Your task to perform on an android device: Open sound settings Image 0: 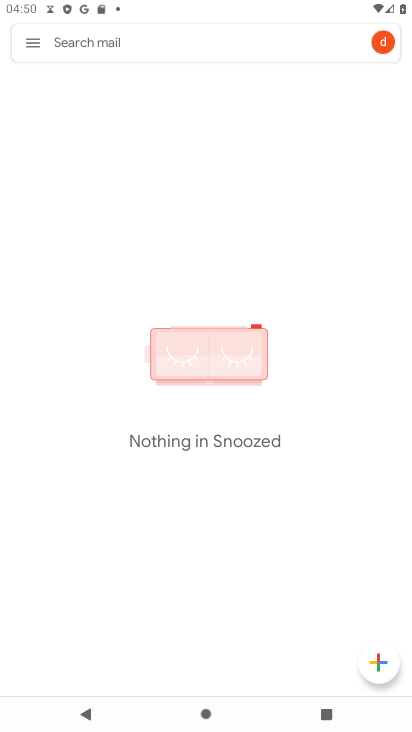
Step 0: press home button
Your task to perform on an android device: Open sound settings Image 1: 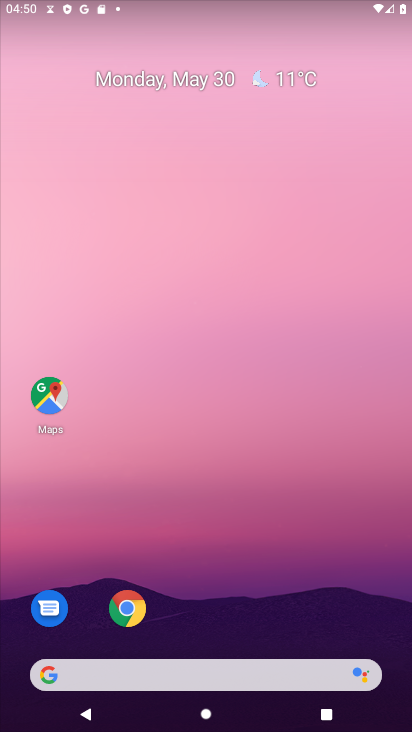
Step 1: drag from (174, 545) to (177, 168)
Your task to perform on an android device: Open sound settings Image 2: 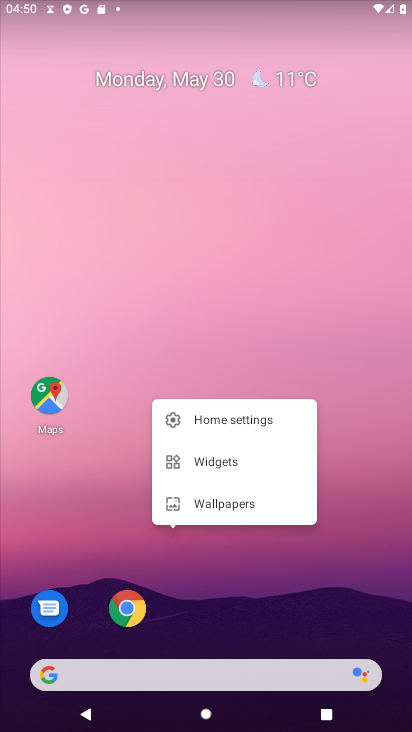
Step 2: drag from (232, 649) to (232, 242)
Your task to perform on an android device: Open sound settings Image 3: 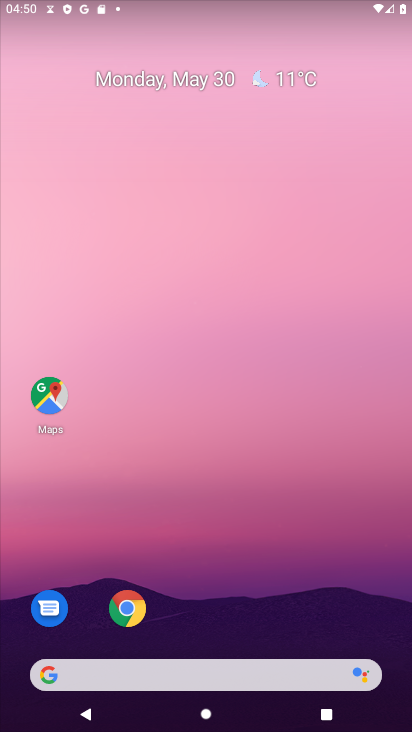
Step 3: drag from (234, 657) to (234, 196)
Your task to perform on an android device: Open sound settings Image 4: 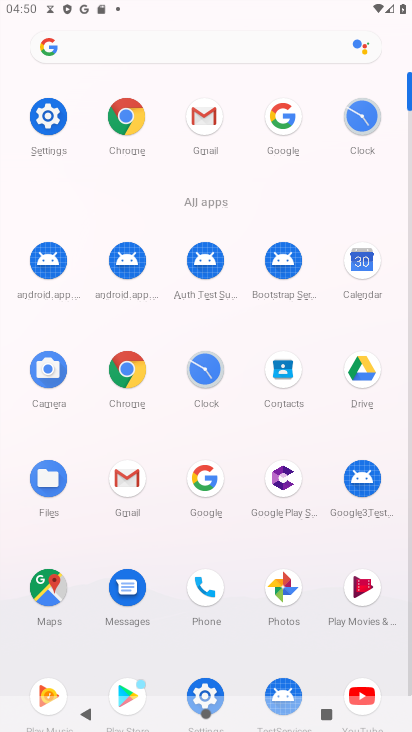
Step 4: click (201, 688)
Your task to perform on an android device: Open sound settings Image 5: 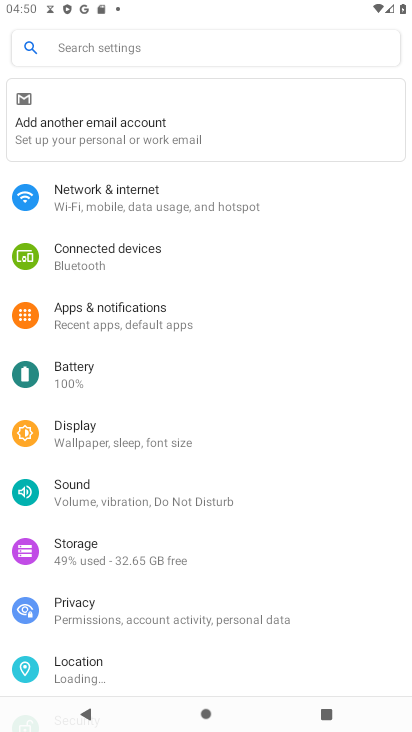
Step 5: click (110, 496)
Your task to perform on an android device: Open sound settings Image 6: 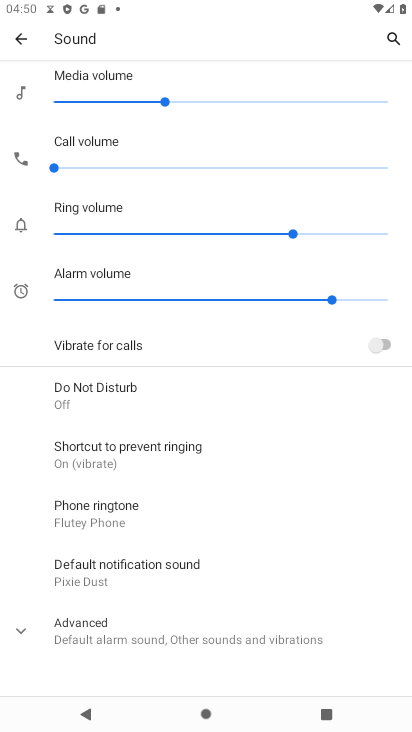
Step 6: task complete